Your task to perform on an android device: Open Google Maps and go to "Timeline" Image 0: 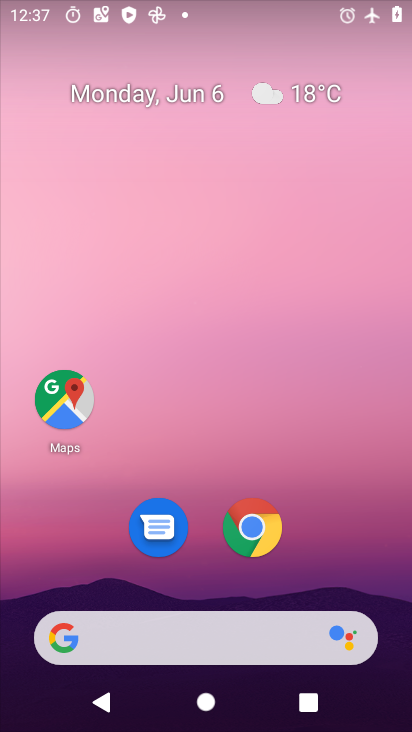
Step 0: click (67, 413)
Your task to perform on an android device: Open Google Maps and go to "Timeline" Image 1: 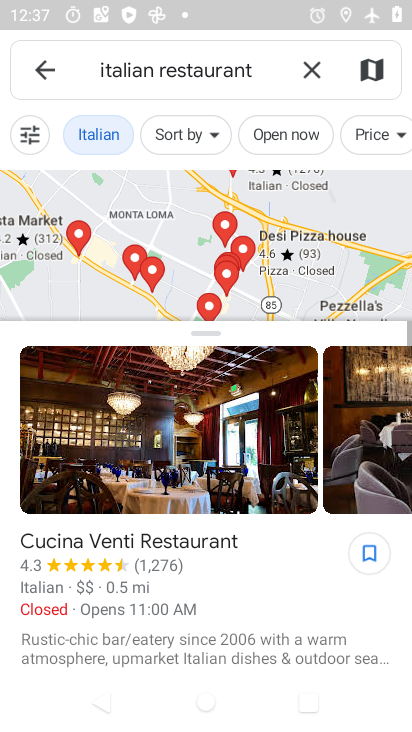
Step 1: click (48, 69)
Your task to perform on an android device: Open Google Maps and go to "Timeline" Image 2: 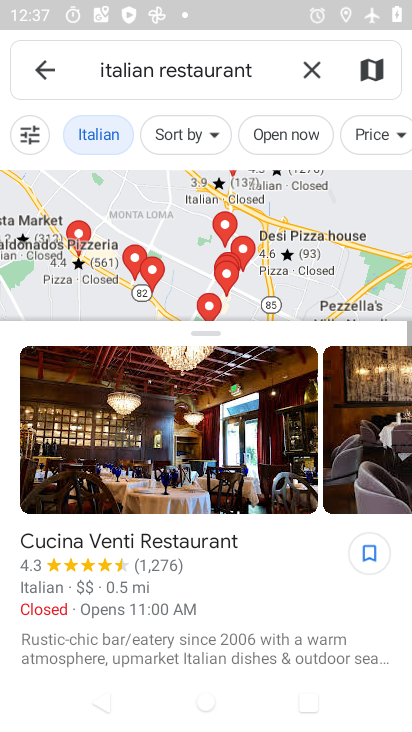
Step 2: click (47, 67)
Your task to perform on an android device: Open Google Maps and go to "Timeline" Image 3: 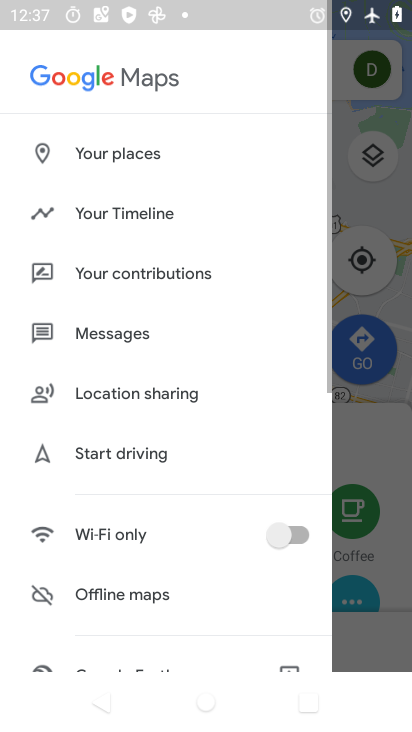
Step 3: click (47, 66)
Your task to perform on an android device: Open Google Maps and go to "Timeline" Image 4: 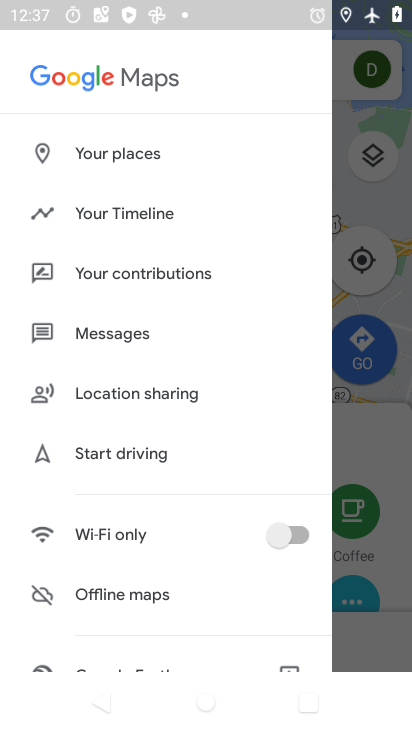
Step 4: drag from (201, 507) to (180, 567)
Your task to perform on an android device: Open Google Maps and go to "Timeline" Image 5: 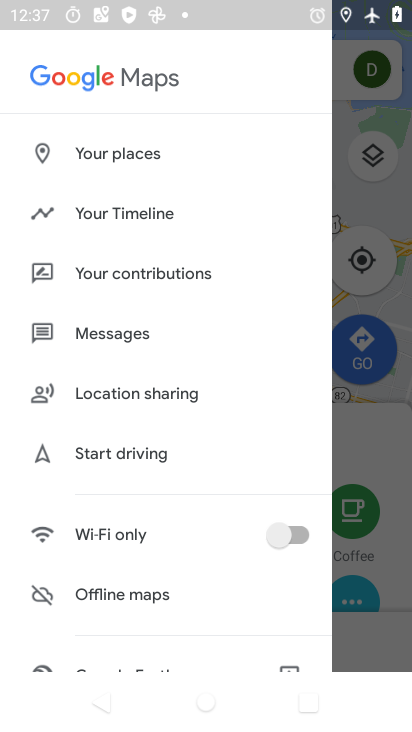
Step 5: click (112, 209)
Your task to perform on an android device: Open Google Maps and go to "Timeline" Image 6: 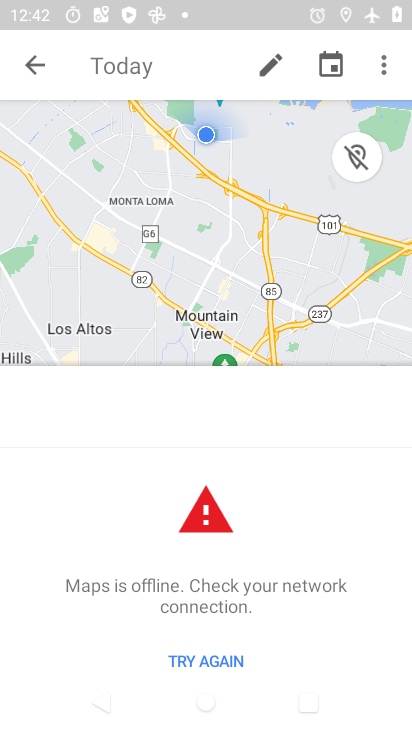
Step 6: task complete